Your task to perform on an android device: View the shopping cart on ebay. Add usb-b to the cart on ebay Image 0: 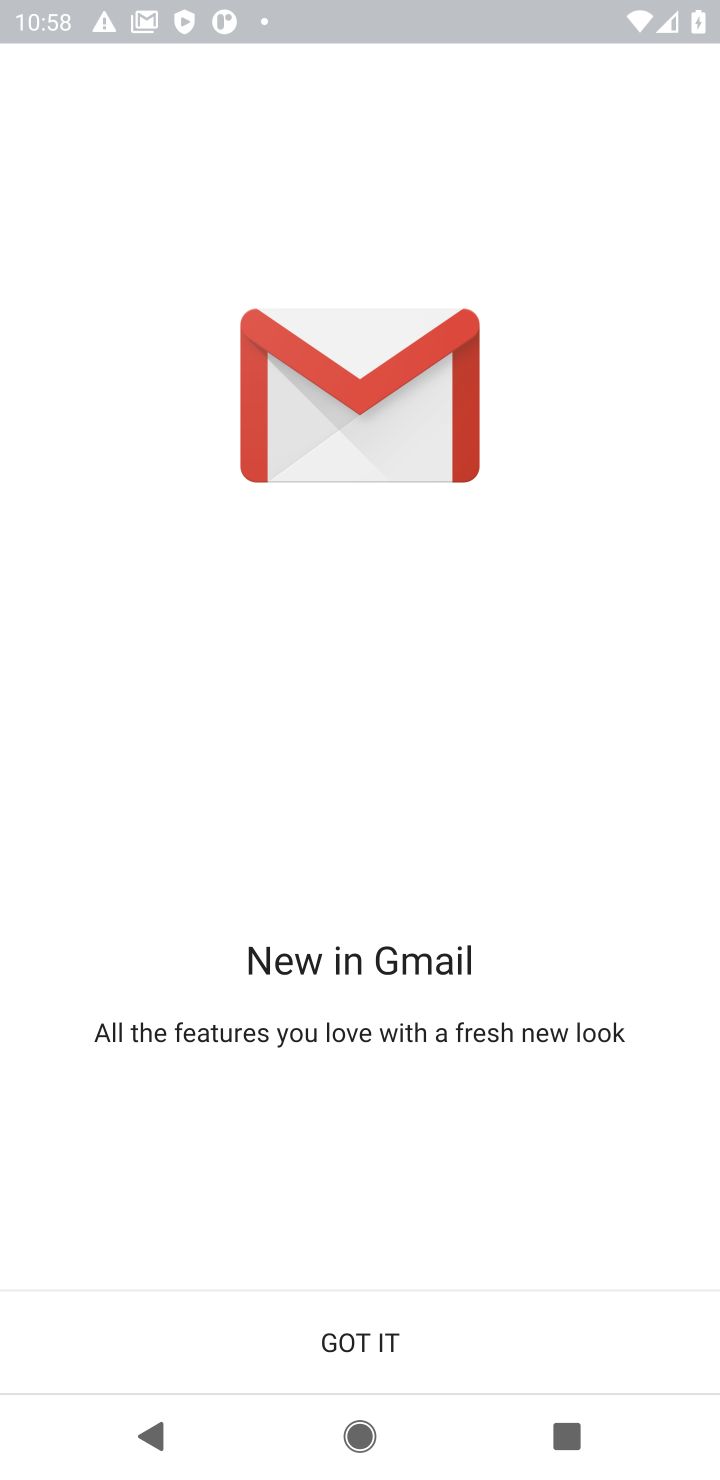
Step 0: press home button
Your task to perform on an android device: View the shopping cart on ebay. Add usb-b to the cart on ebay Image 1: 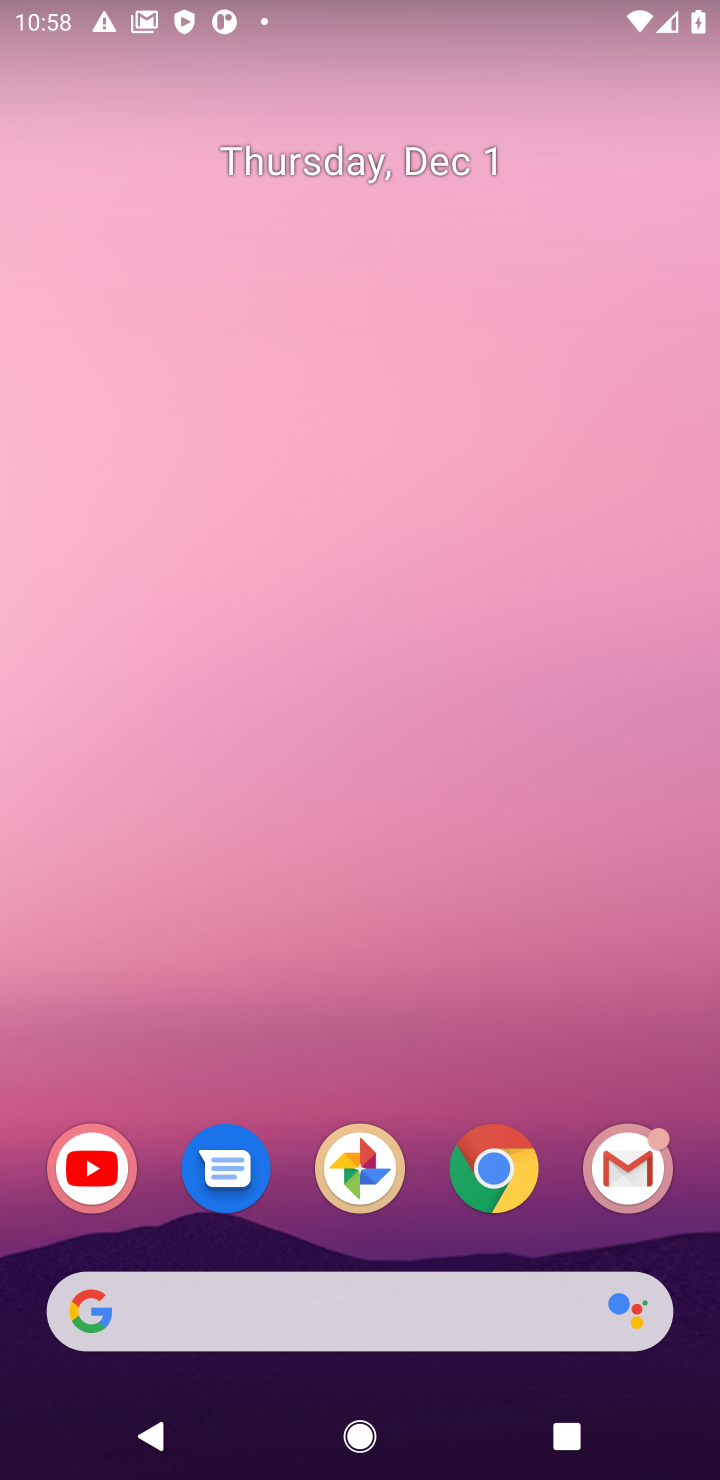
Step 1: click (493, 1180)
Your task to perform on an android device: View the shopping cart on ebay. Add usb-b to the cart on ebay Image 2: 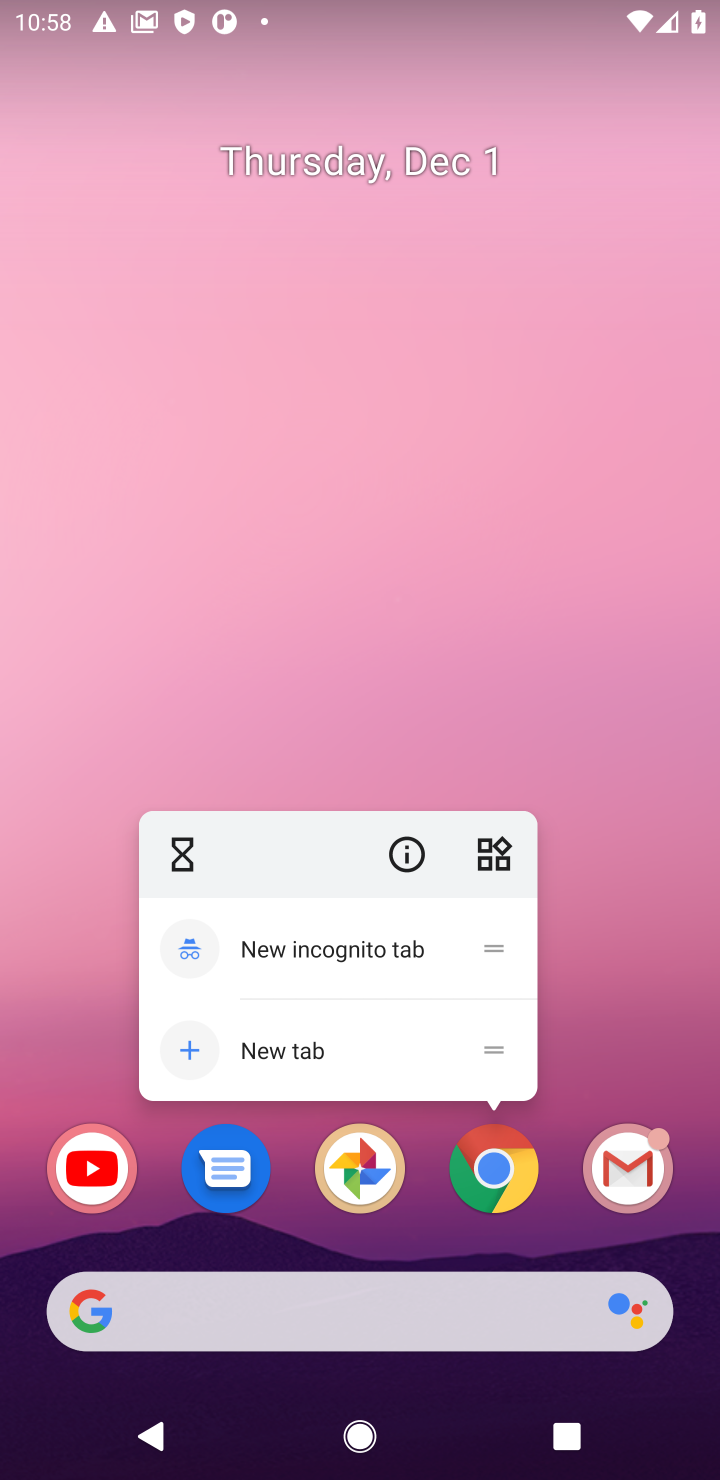
Step 2: click (493, 1180)
Your task to perform on an android device: View the shopping cart on ebay. Add usb-b to the cart on ebay Image 3: 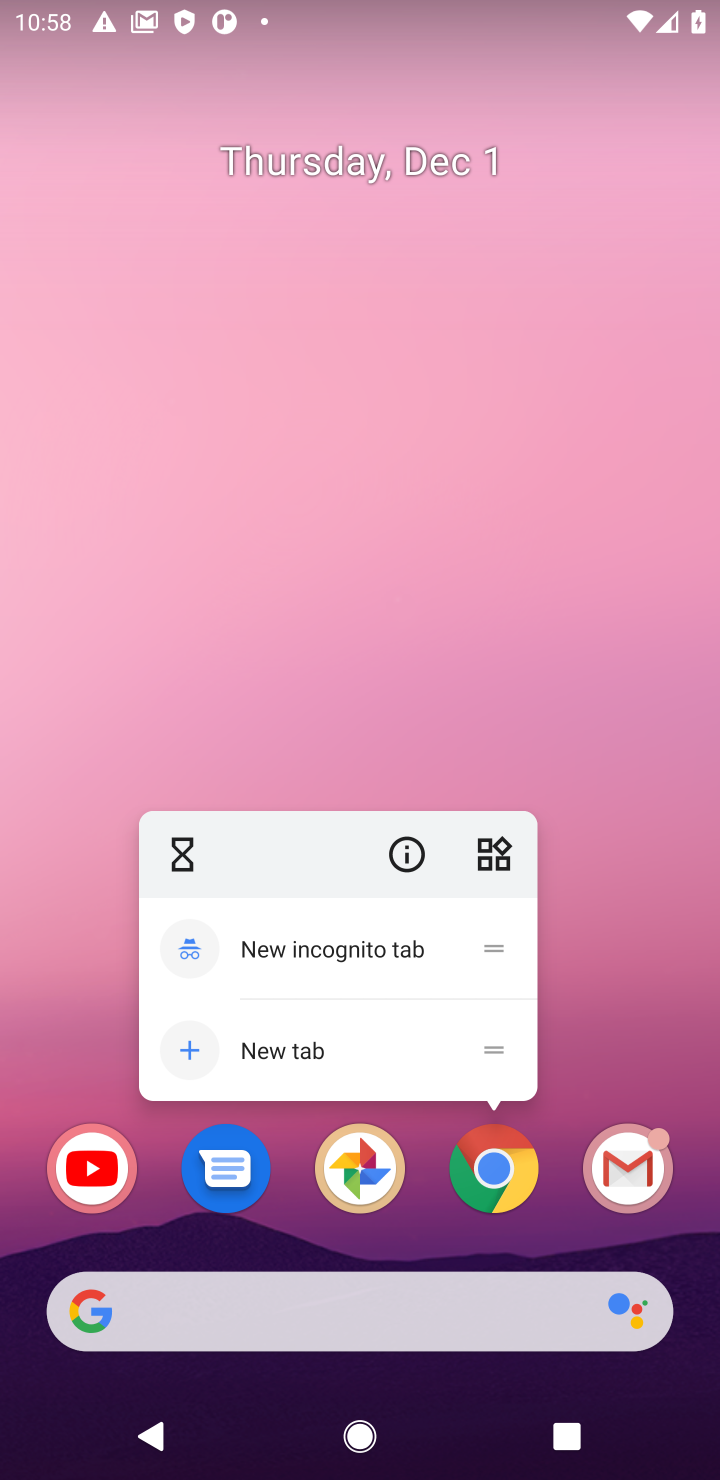
Step 3: click (493, 1180)
Your task to perform on an android device: View the shopping cart on ebay. Add usb-b to the cart on ebay Image 4: 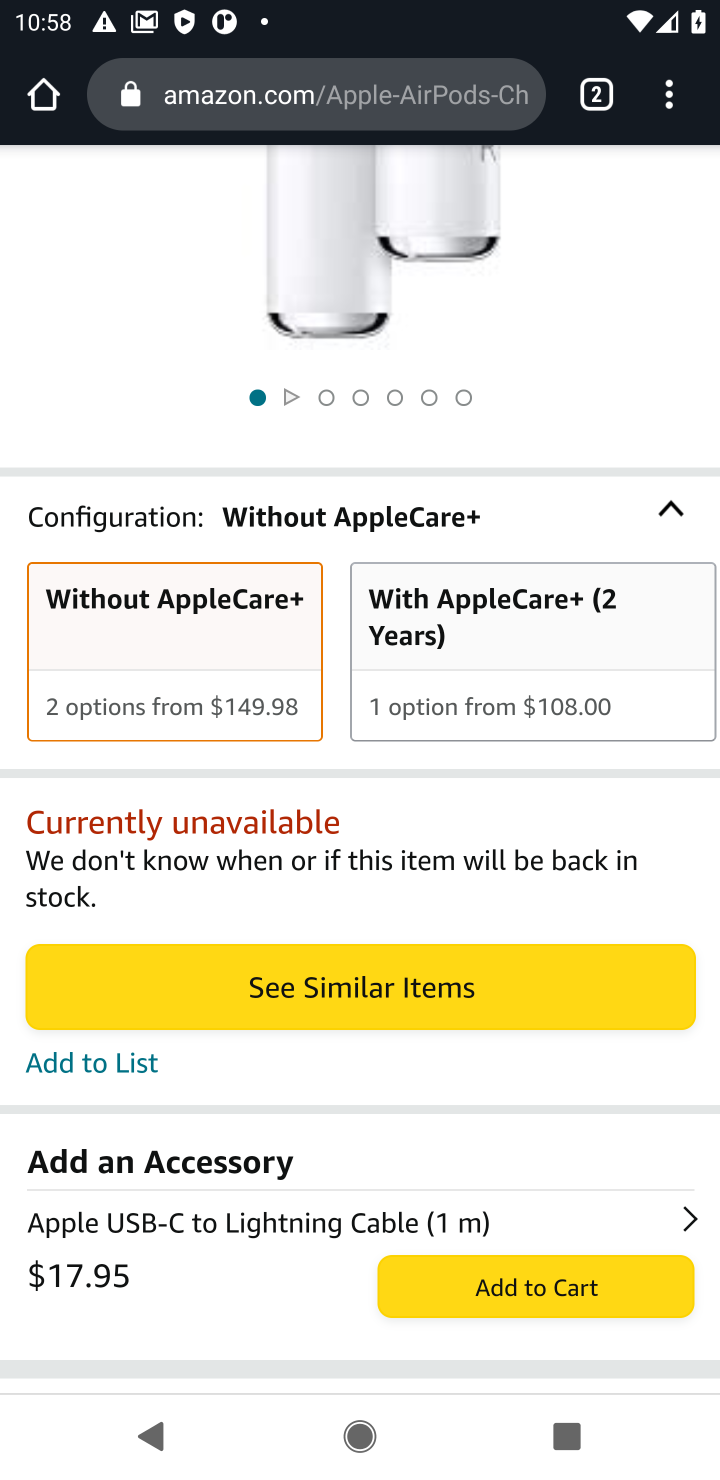
Step 4: click (286, 103)
Your task to perform on an android device: View the shopping cart on ebay. Add usb-b to the cart on ebay Image 5: 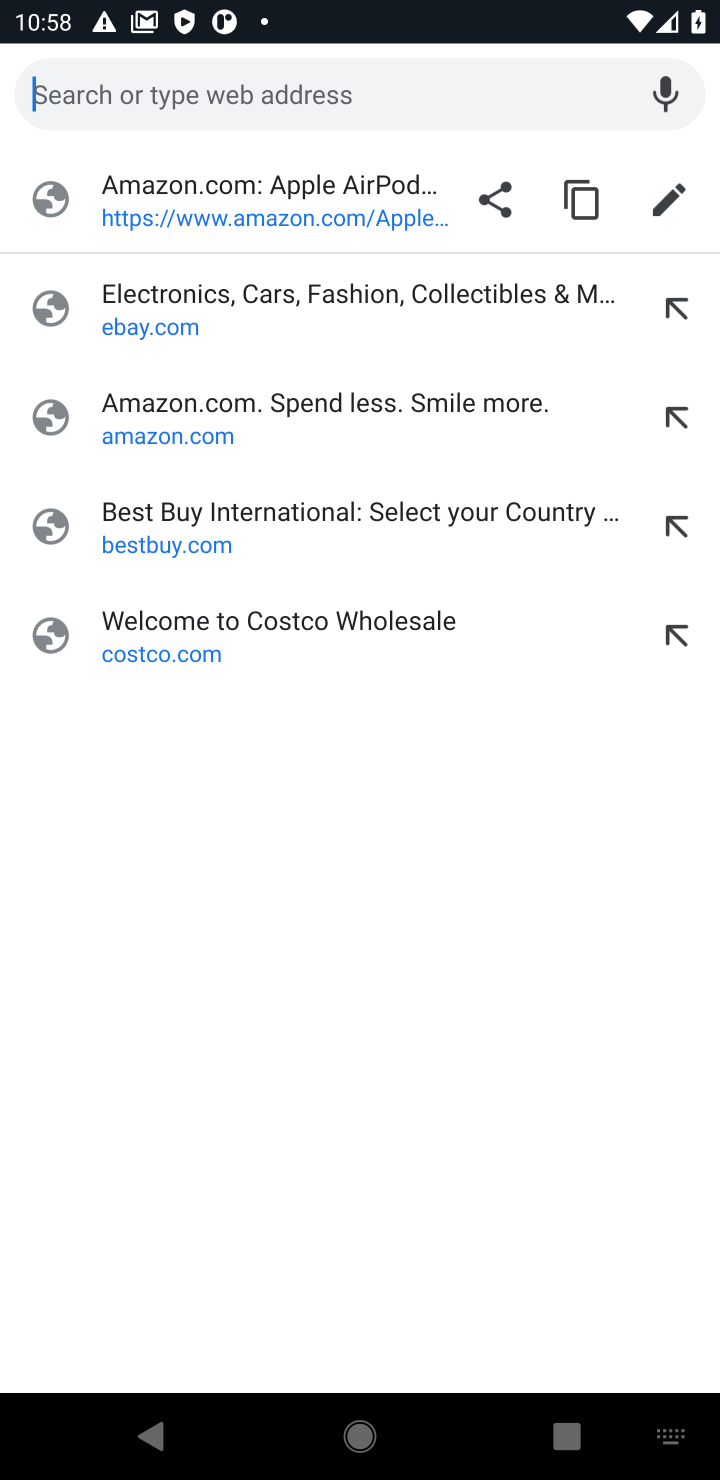
Step 5: click (125, 310)
Your task to perform on an android device: View the shopping cart on ebay. Add usb-b to the cart on ebay Image 6: 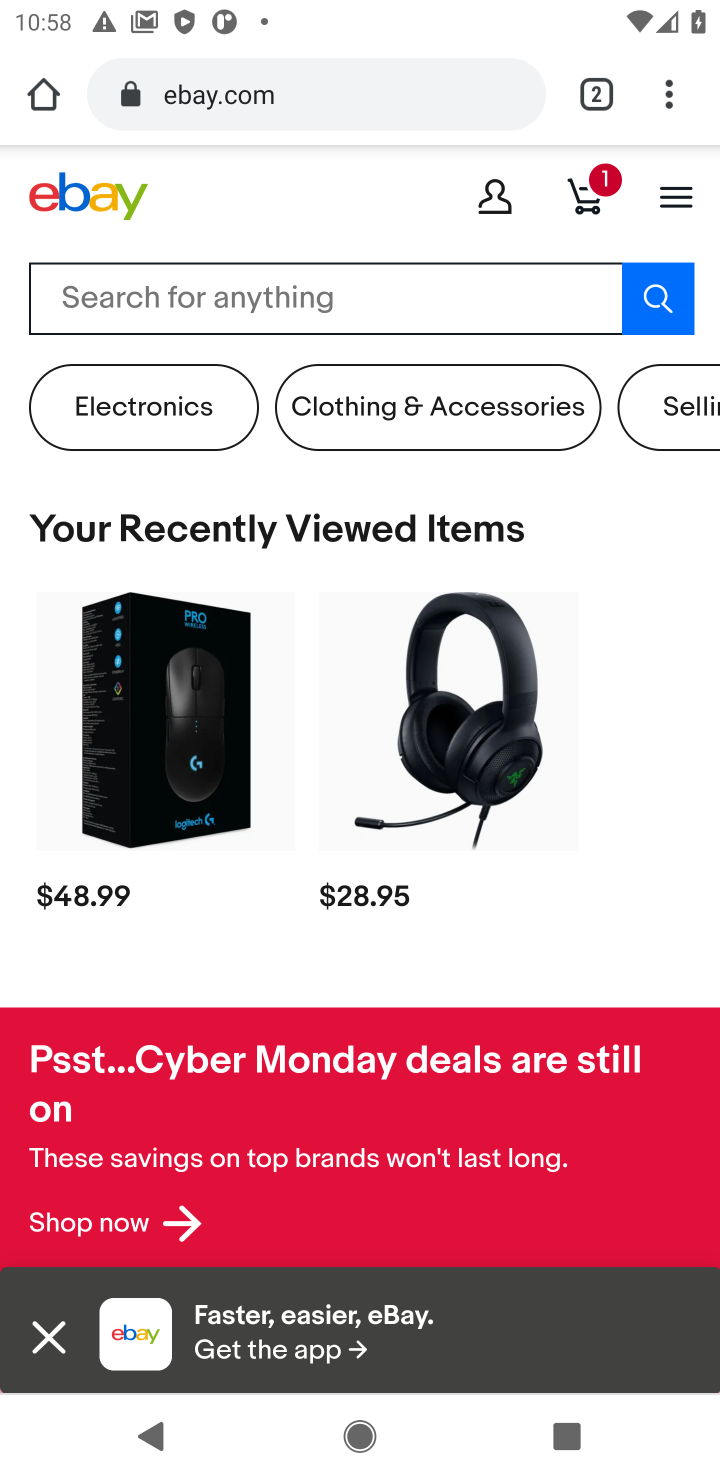
Step 6: click (585, 203)
Your task to perform on an android device: View the shopping cart on ebay. Add usb-b to the cart on ebay Image 7: 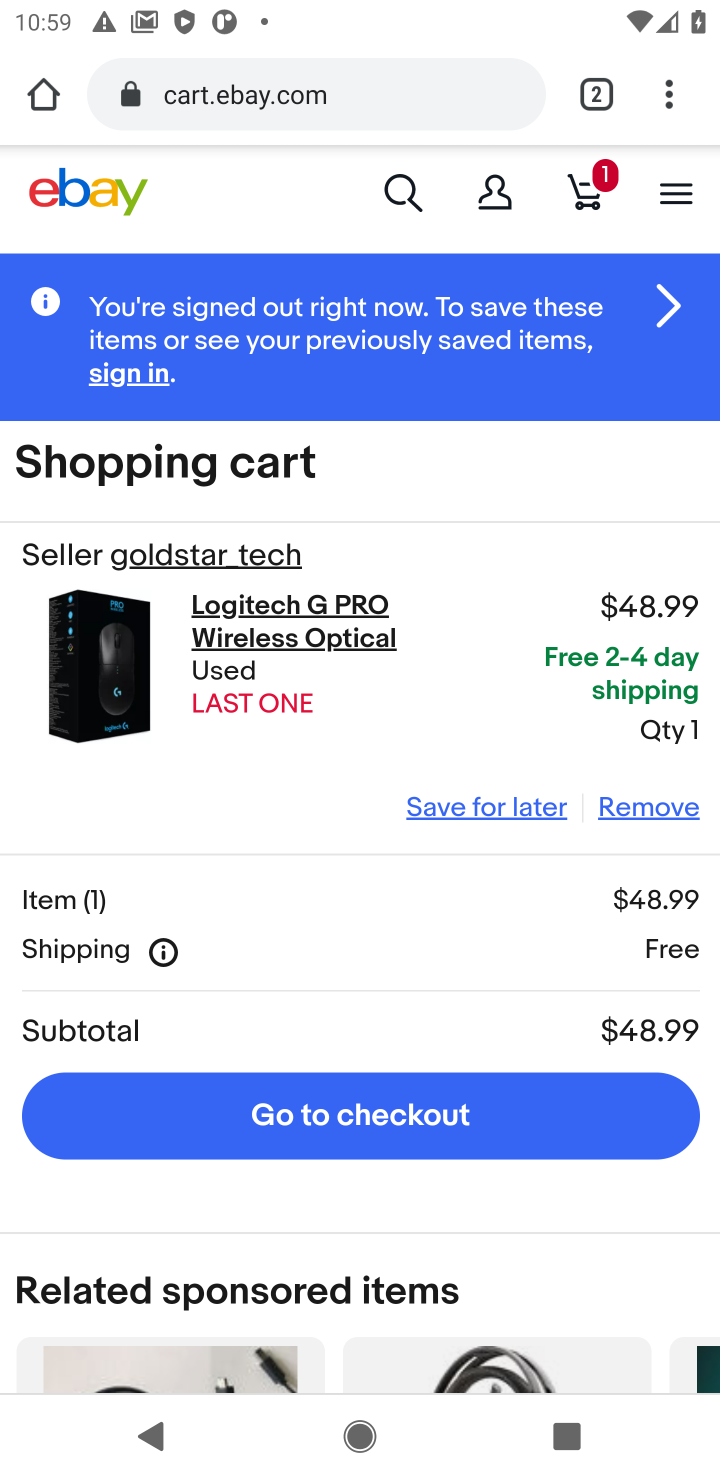
Step 7: click (399, 193)
Your task to perform on an android device: View the shopping cart on ebay. Add usb-b to the cart on ebay Image 8: 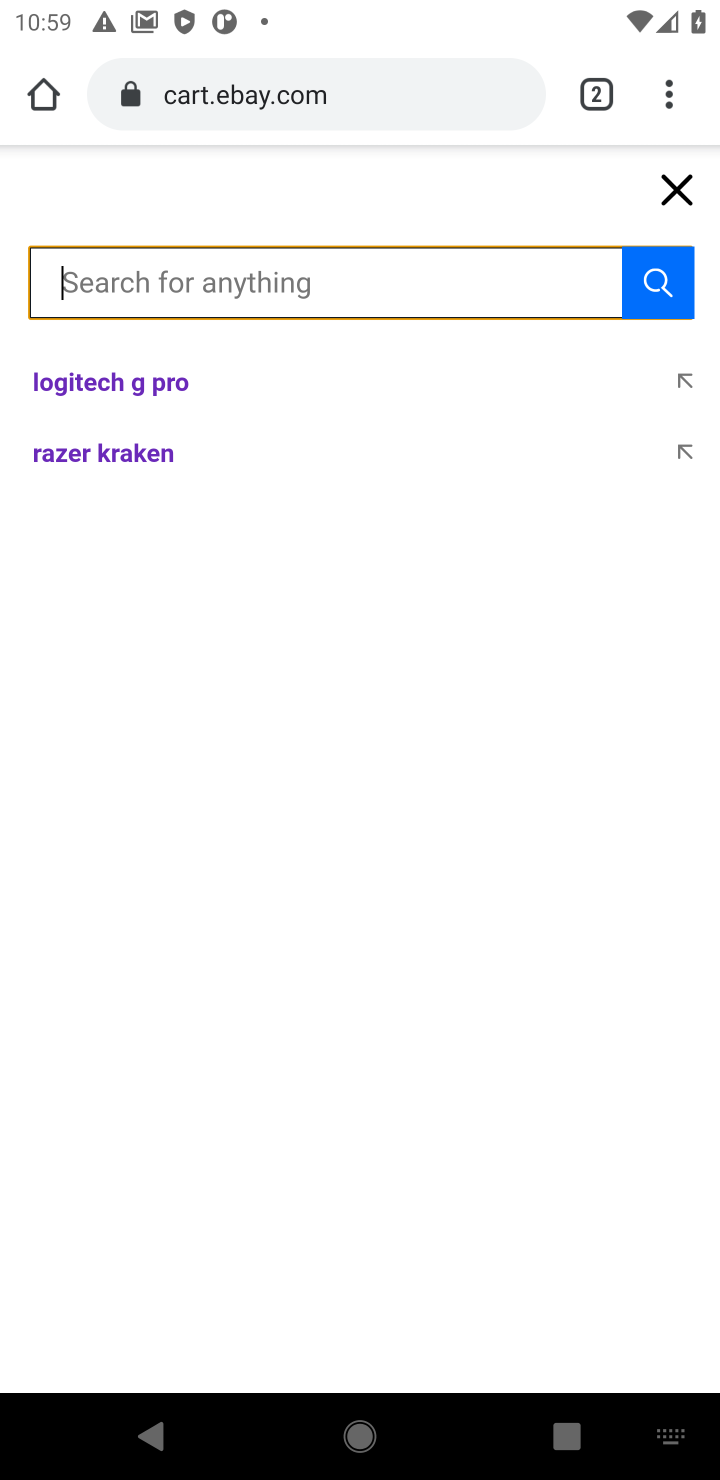
Step 8: type "usb-b "
Your task to perform on an android device: View the shopping cart on ebay. Add usb-b to the cart on ebay Image 9: 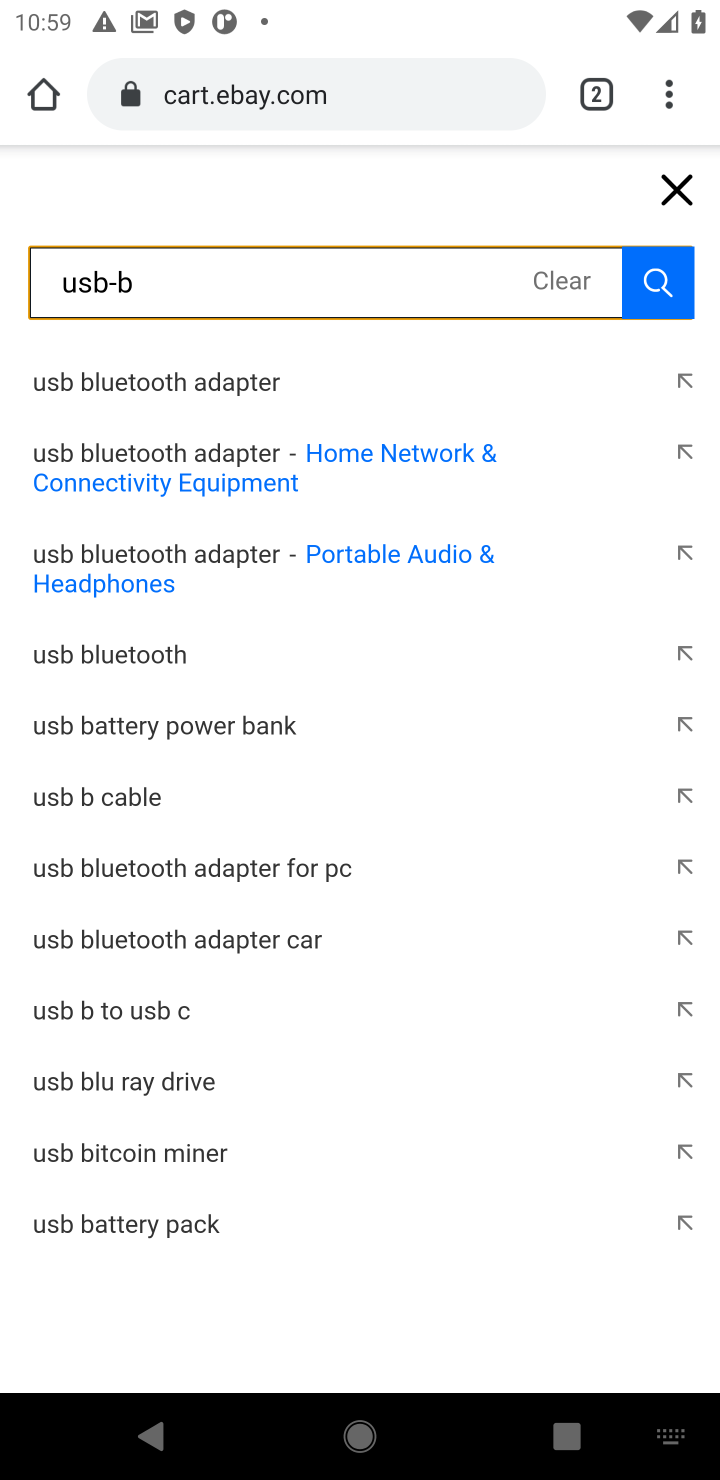
Step 9: click (651, 288)
Your task to perform on an android device: View the shopping cart on ebay. Add usb-b to the cart on ebay Image 10: 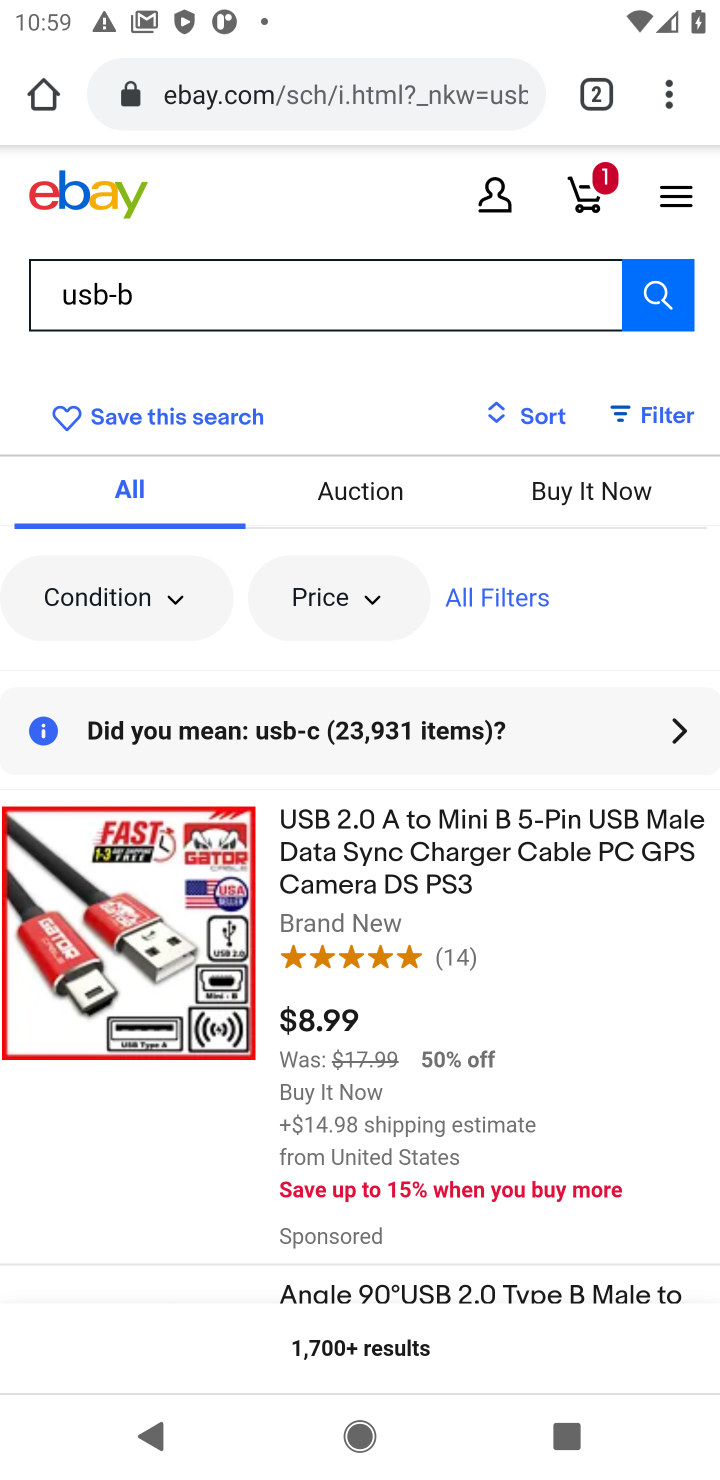
Step 10: drag from (530, 888) to (490, 546)
Your task to perform on an android device: View the shopping cart on ebay. Add usb-b to the cart on ebay Image 11: 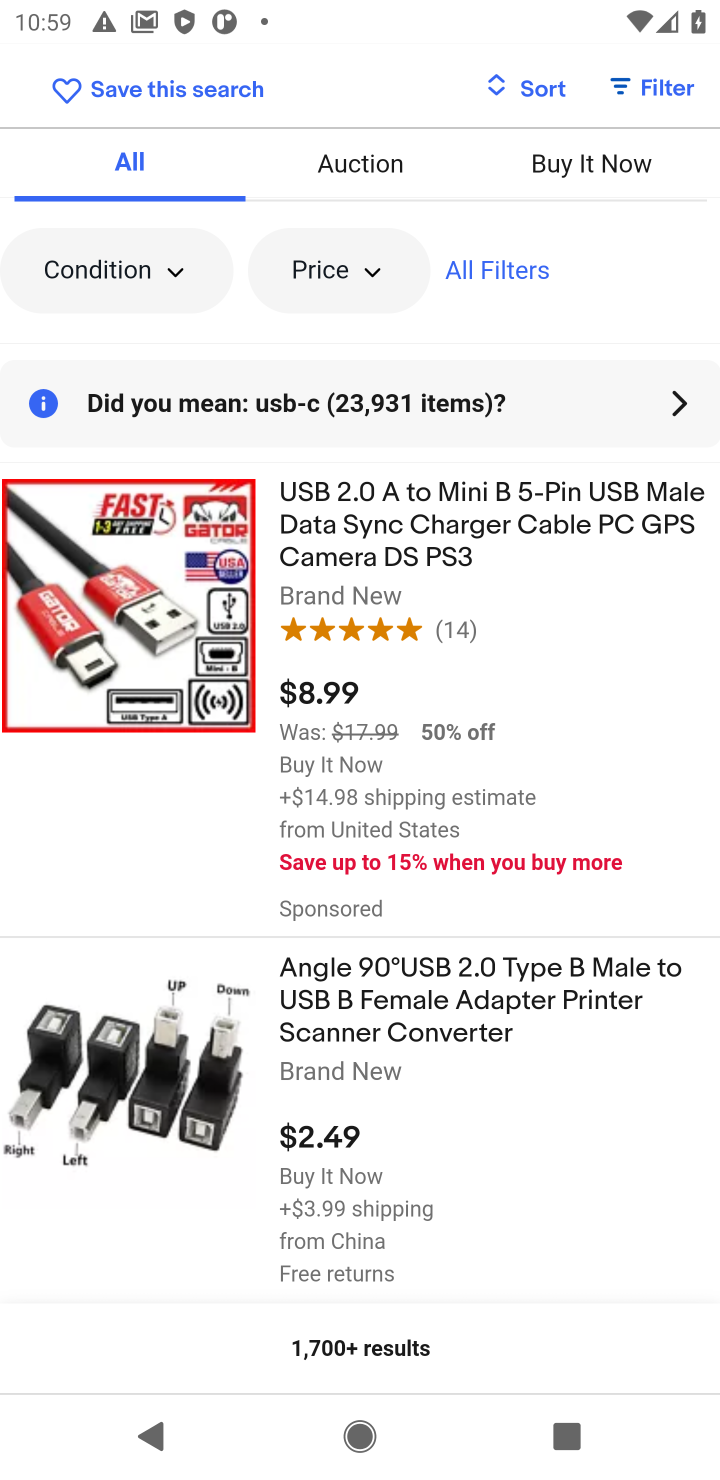
Step 11: click (313, 1029)
Your task to perform on an android device: View the shopping cart on ebay. Add usb-b to the cart on ebay Image 12: 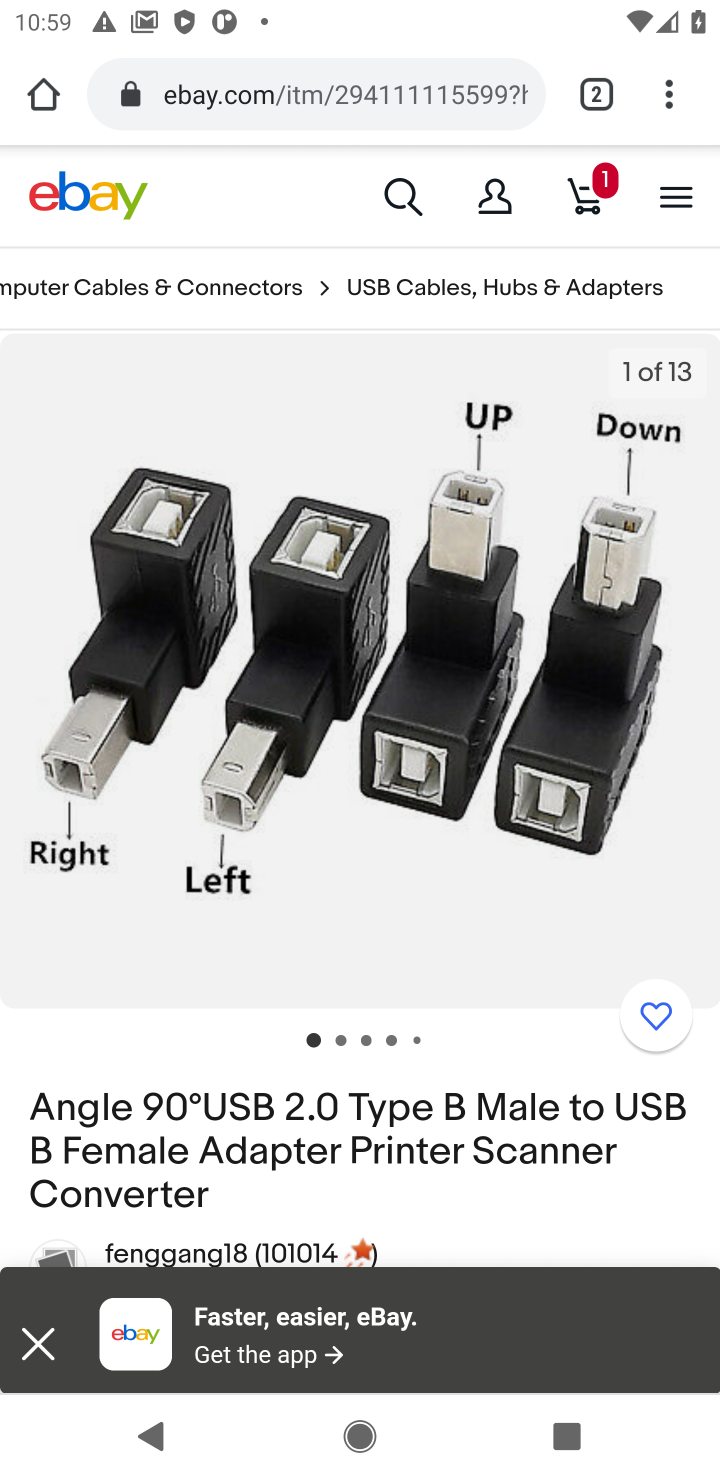
Step 12: drag from (330, 1116) to (288, 559)
Your task to perform on an android device: View the shopping cart on ebay. Add usb-b to the cart on ebay Image 13: 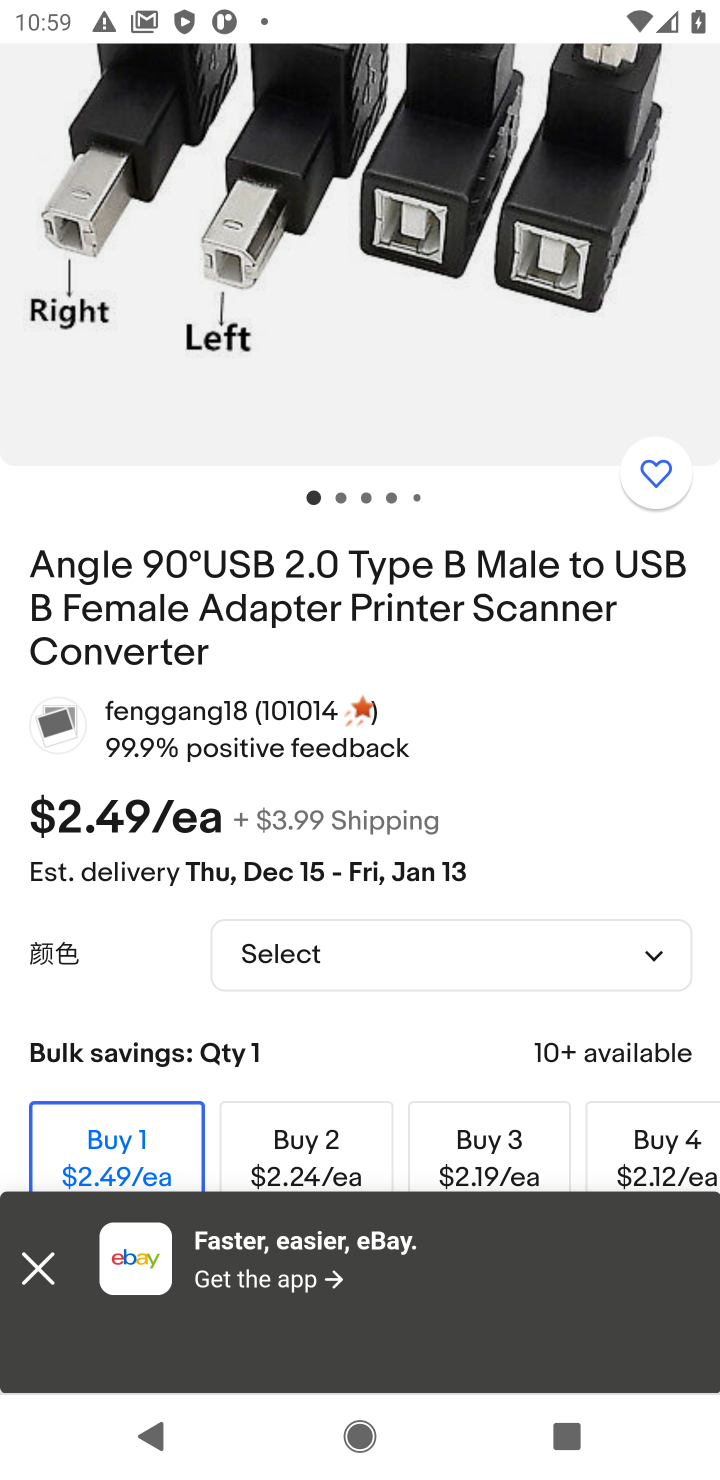
Step 13: drag from (329, 895) to (278, 404)
Your task to perform on an android device: View the shopping cart on ebay. Add usb-b to the cart on ebay Image 14: 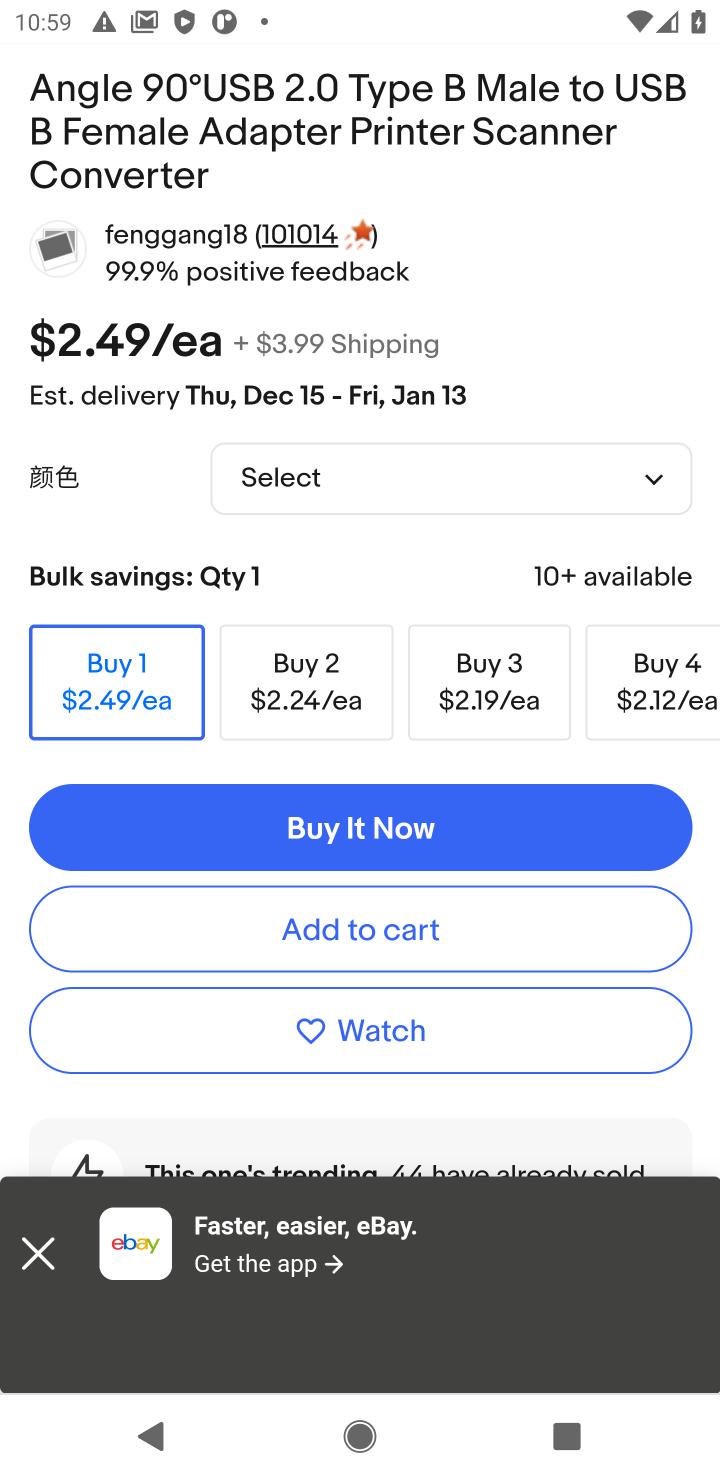
Step 14: click (348, 917)
Your task to perform on an android device: View the shopping cart on ebay. Add usb-b to the cart on ebay Image 15: 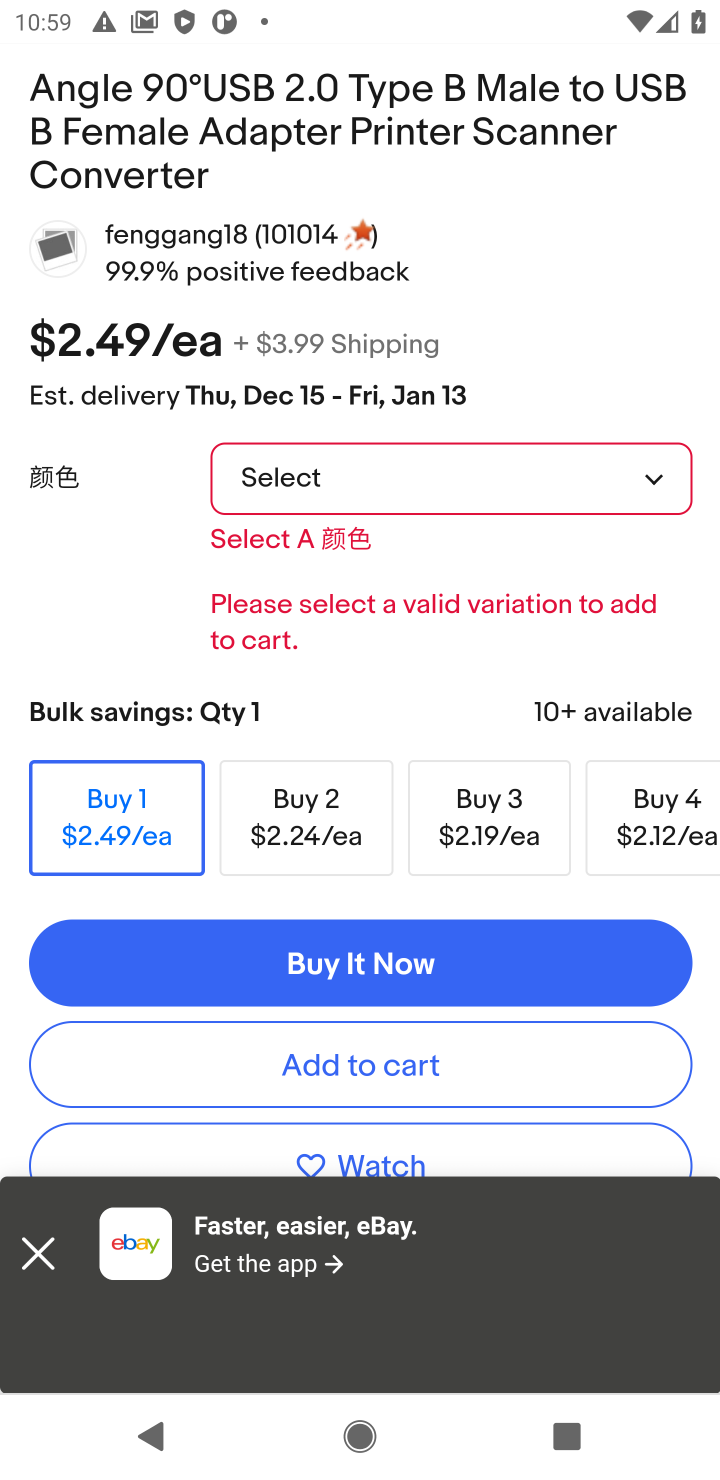
Step 15: click (665, 479)
Your task to perform on an android device: View the shopping cart on ebay. Add usb-b to the cart on ebay Image 16: 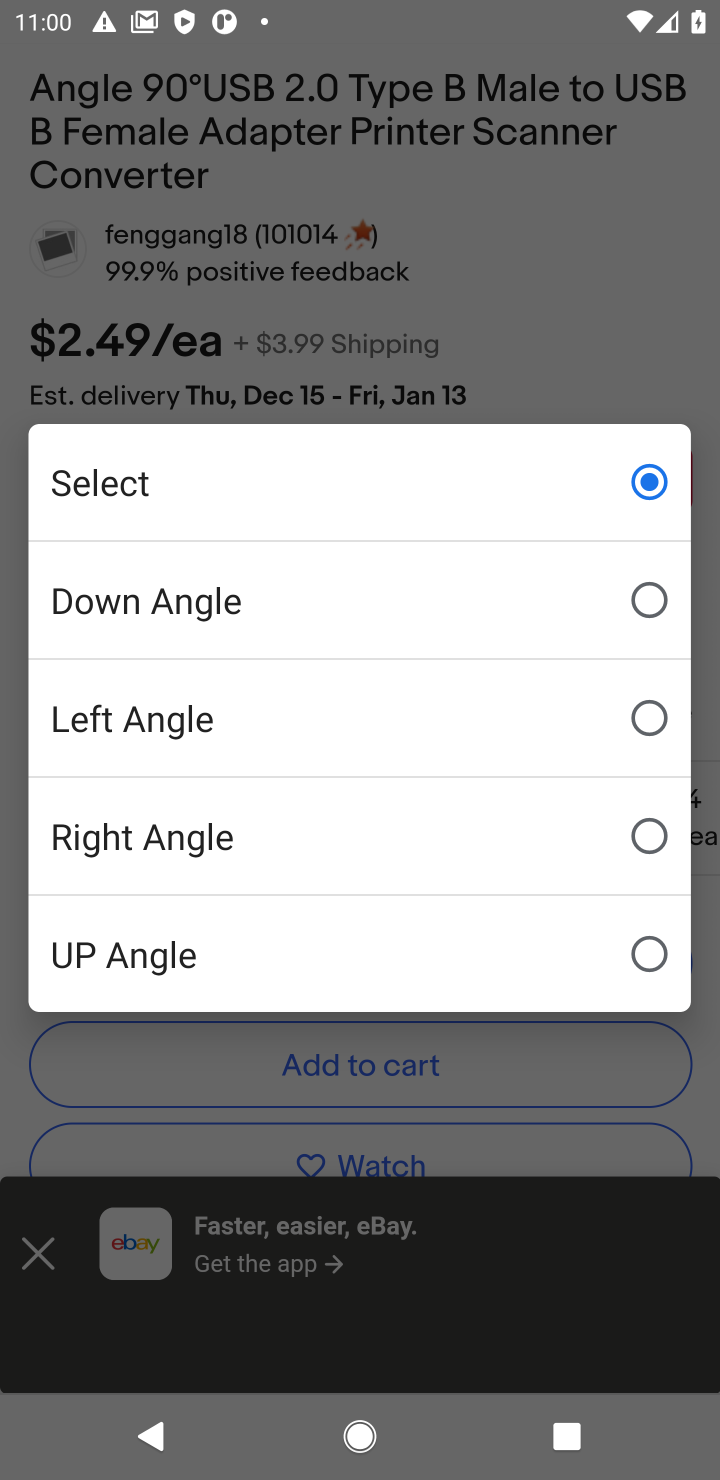
Step 16: click (128, 602)
Your task to perform on an android device: View the shopping cart on ebay. Add usb-b to the cart on ebay Image 17: 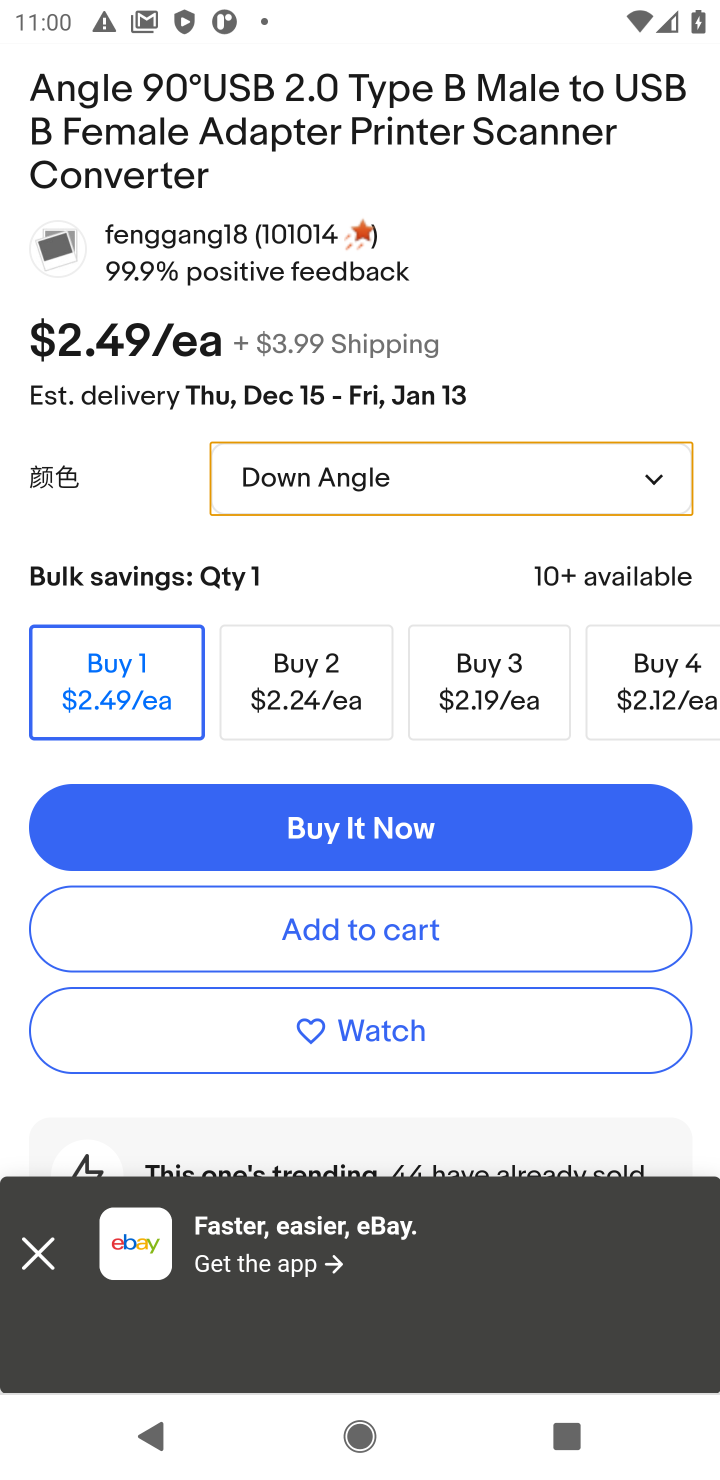
Step 17: click (358, 920)
Your task to perform on an android device: View the shopping cart on ebay. Add usb-b to the cart on ebay Image 18: 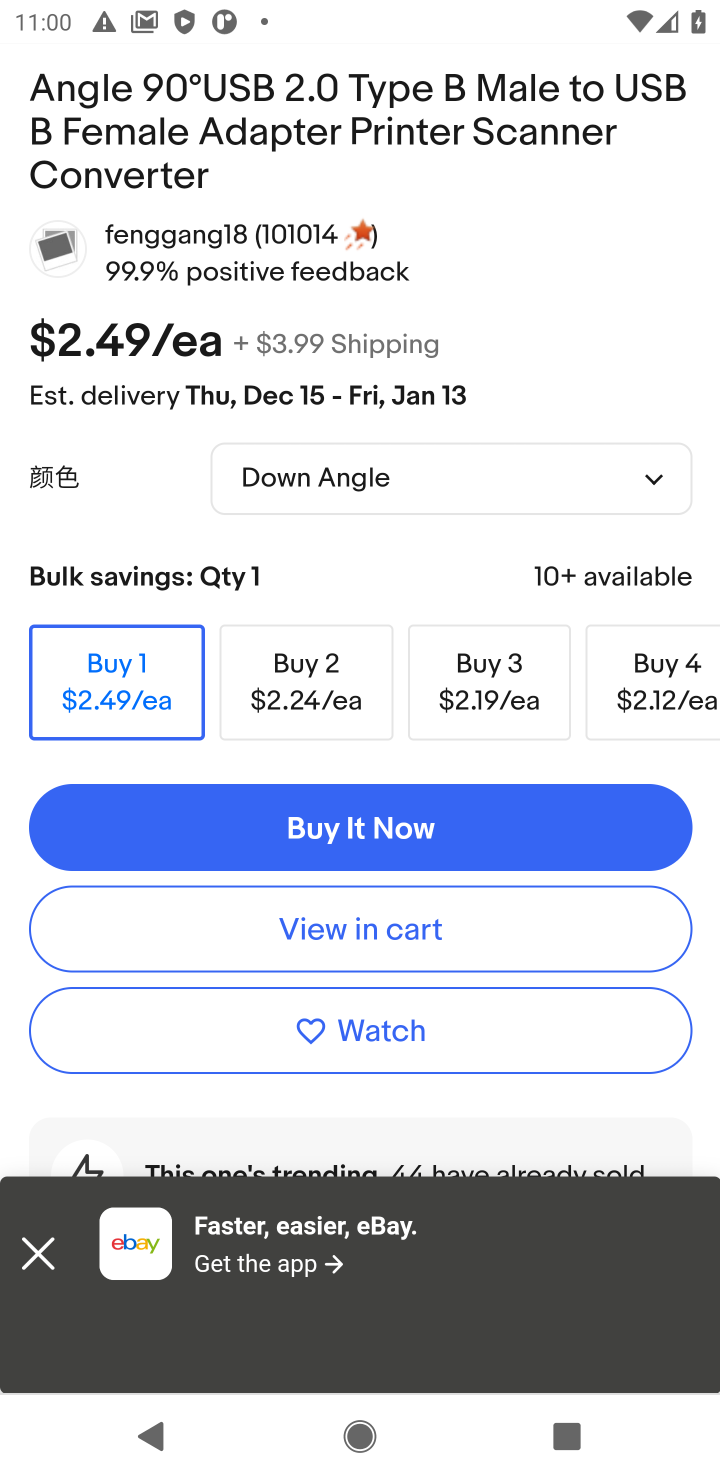
Step 18: task complete